Your task to perform on an android device: Search for seafood restaurants on Google Maps Image 0: 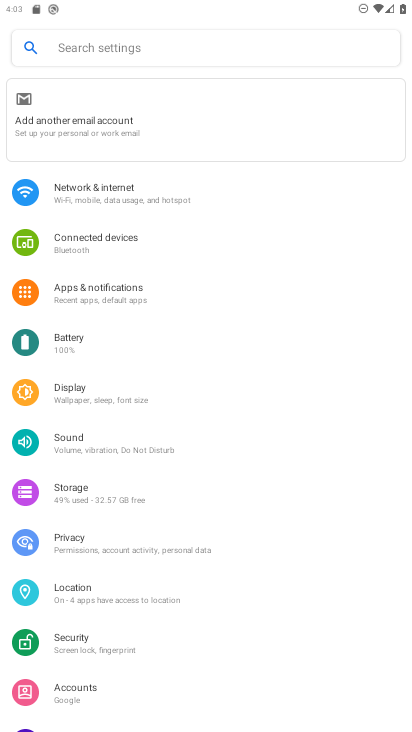
Step 0: press home button
Your task to perform on an android device: Search for seafood restaurants on Google Maps Image 1: 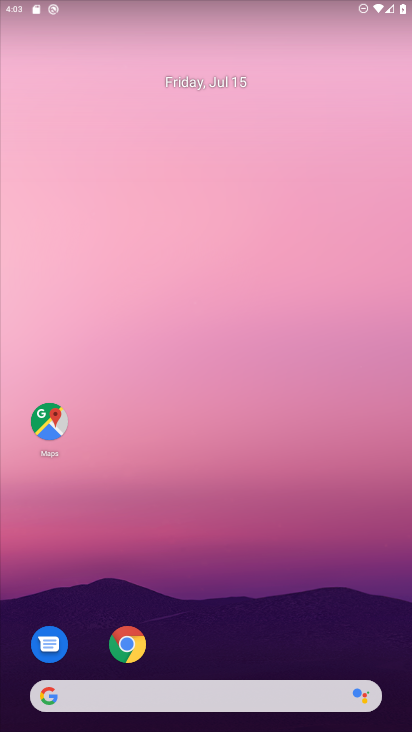
Step 1: drag from (60, 522) to (320, 91)
Your task to perform on an android device: Search for seafood restaurants on Google Maps Image 2: 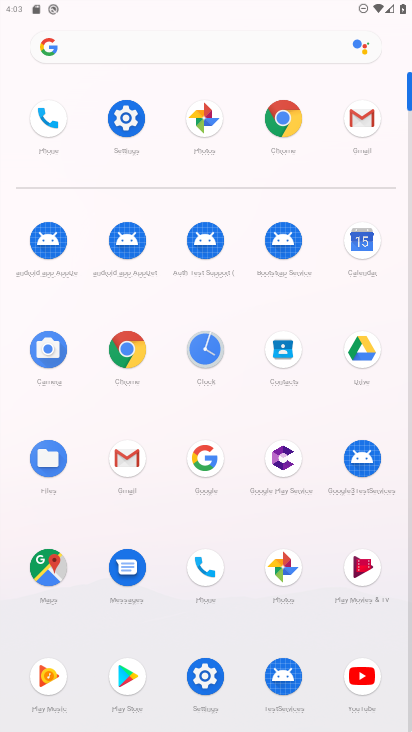
Step 2: click (29, 577)
Your task to perform on an android device: Search for seafood restaurants on Google Maps Image 3: 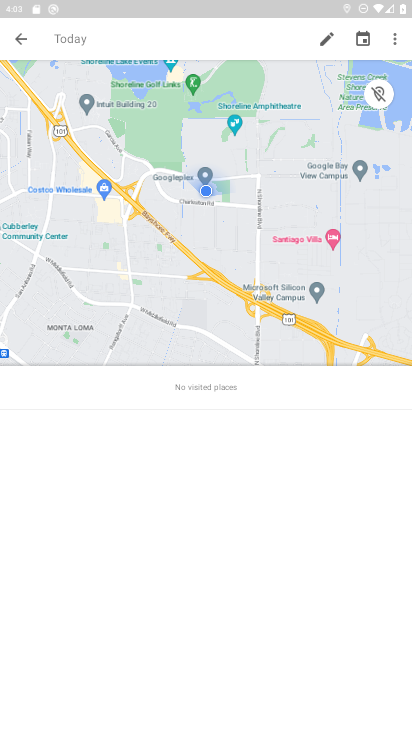
Step 3: click (203, 32)
Your task to perform on an android device: Search for seafood restaurants on Google Maps Image 4: 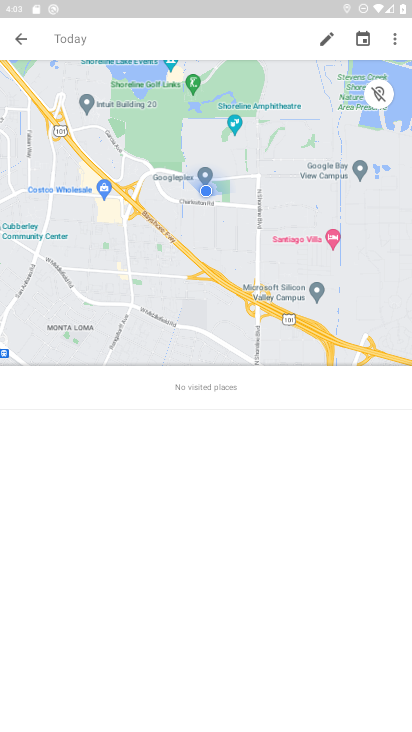
Step 4: type " seafood restaurants"
Your task to perform on an android device: Search for seafood restaurants on Google Maps Image 5: 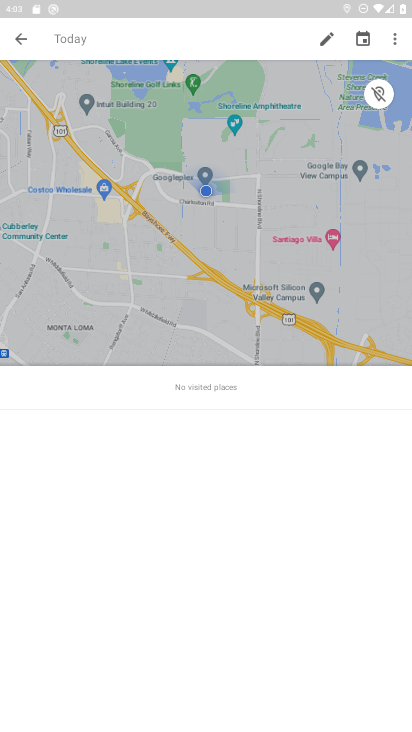
Step 5: type ""
Your task to perform on an android device: Search for seafood restaurants on Google Maps Image 6: 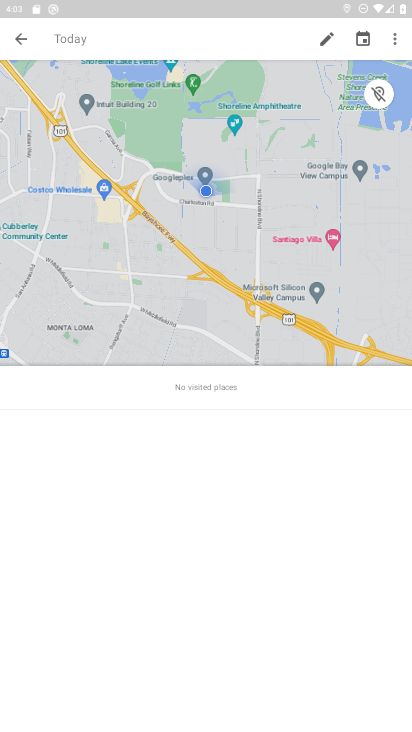
Step 6: click (151, 27)
Your task to perform on an android device: Search for seafood restaurants on Google Maps Image 7: 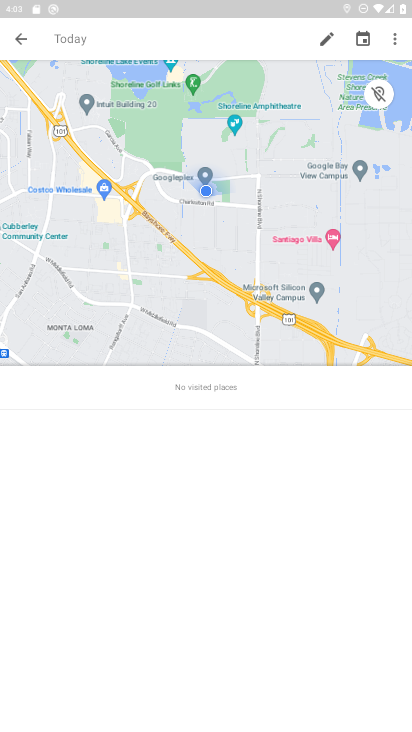
Step 7: type " seafood restaurants"
Your task to perform on an android device: Search for seafood restaurants on Google Maps Image 8: 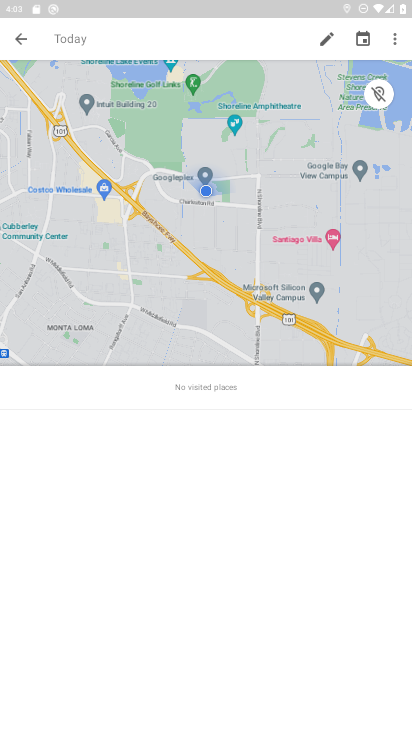
Step 8: type ""
Your task to perform on an android device: Search for seafood restaurants on Google Maps Image 9: 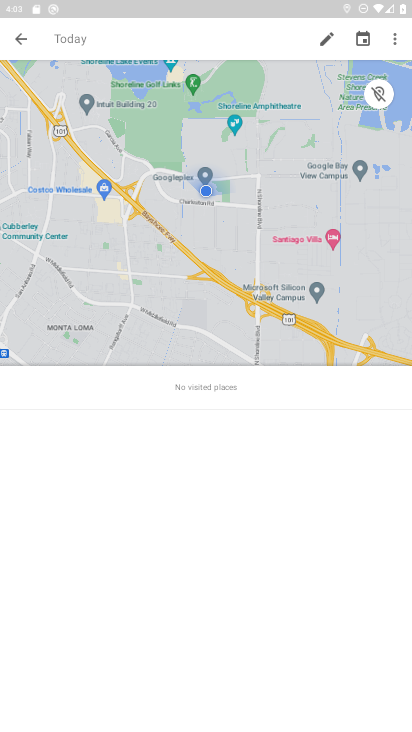
Step 9: click (31, 45)
Your task to perform on an android device: Search for seafood restaurants on Google Maps Image 10: 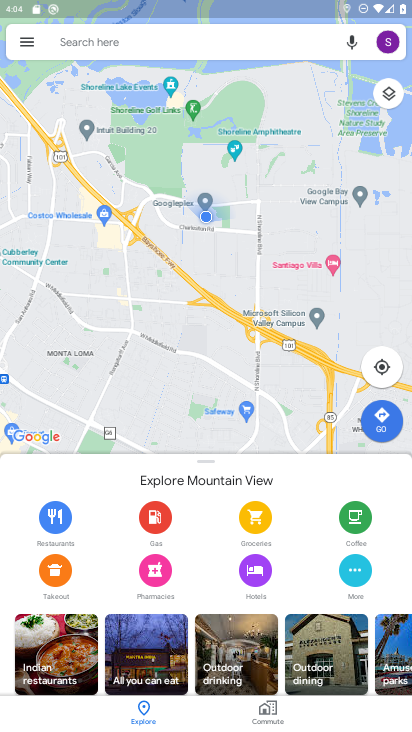
Step 10: click (176, 42)
Your task to perform on an android device: Search for seafood restaurants on Google Maps Image 11: 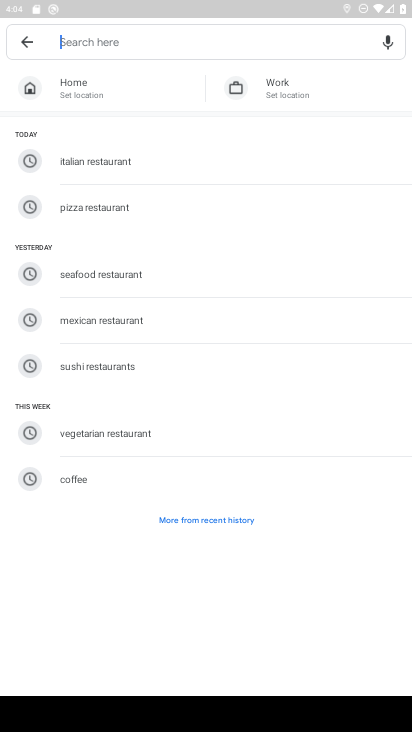
Step 11: type " seafood restaurants"
Your task to perform on an android device: Search for seafood restaurants on Google Maps Image 12: 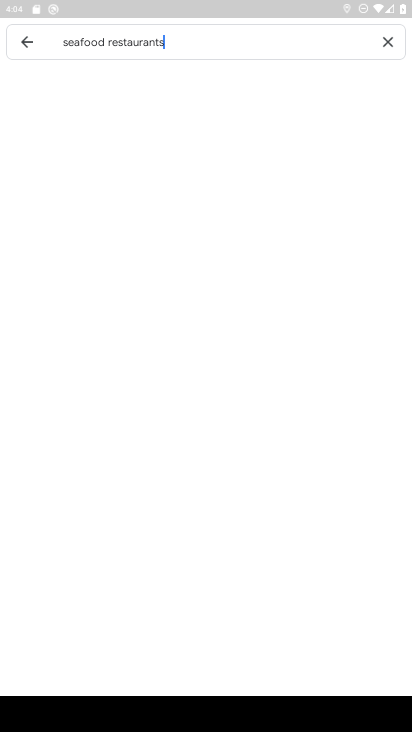
Step 12: type ""
Your task to perform on an android device: Search for seafood restaurants on Google Maps Image 13: 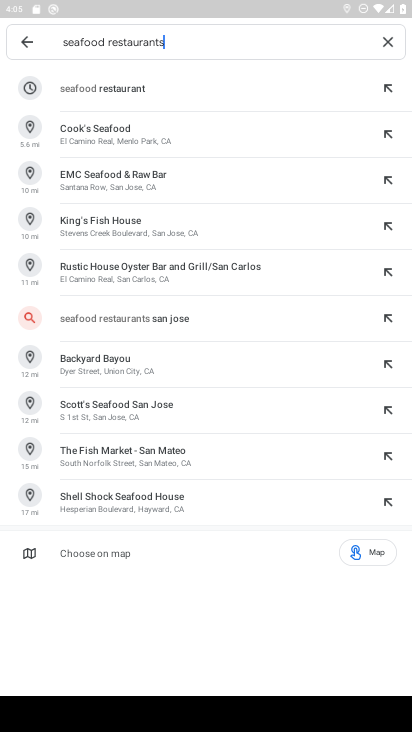
Step 13: click (99, 92)
Your task to perform on an android device: Search for seafood restaurants on Google Maps Image 14: 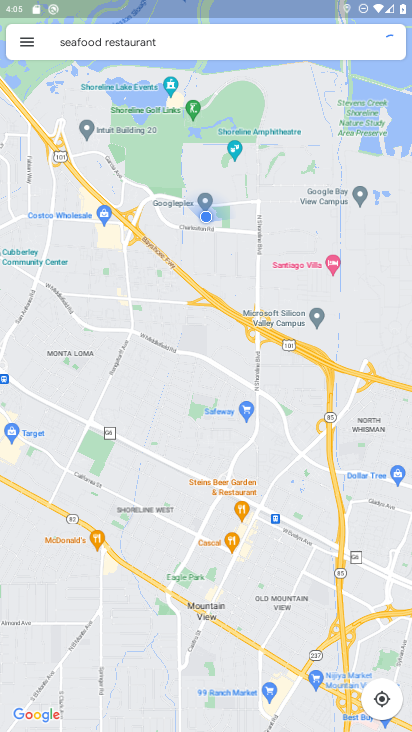
Step 14: task complete